Your task to perform on an android device: turn off notifications in google photos Image 0: 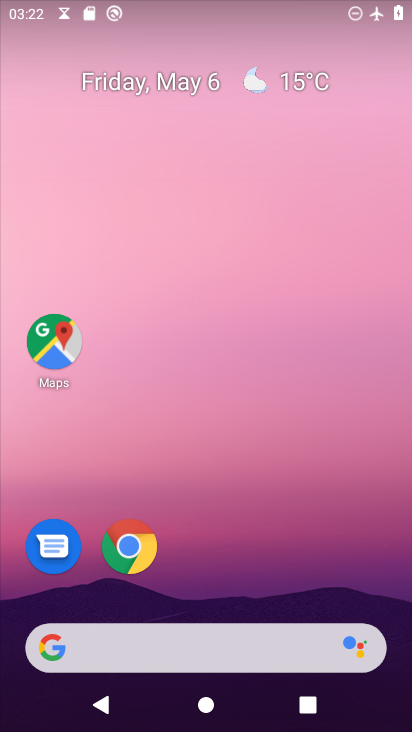
Step 0: drag from (211, 551) to (202, 154)
Your task to perform on an android device: turn off notifications in google photos Image 1: 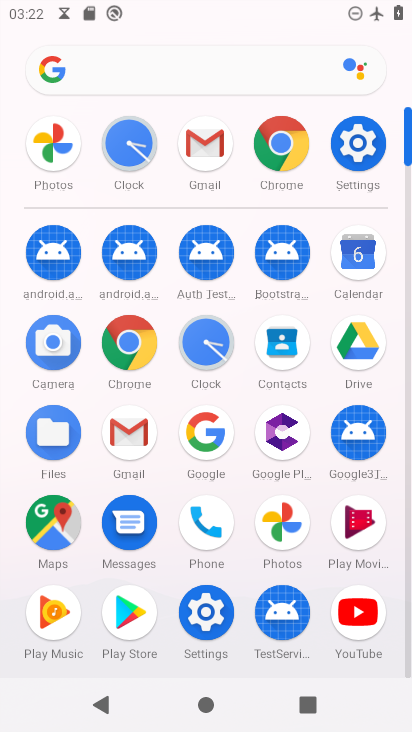
Step 1: click (292, 528)
Your task to perform on an android device: turn off notifications in google photos Image 2: 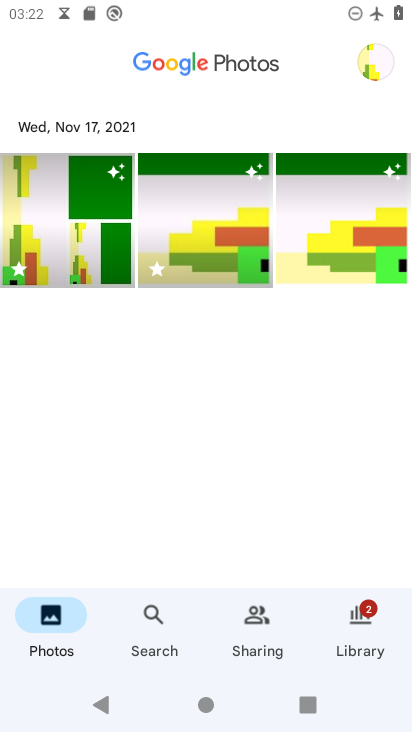
Step 2: click (376, 57)
Your task to perform on an android device: turn off notifications in google photos Image 3: 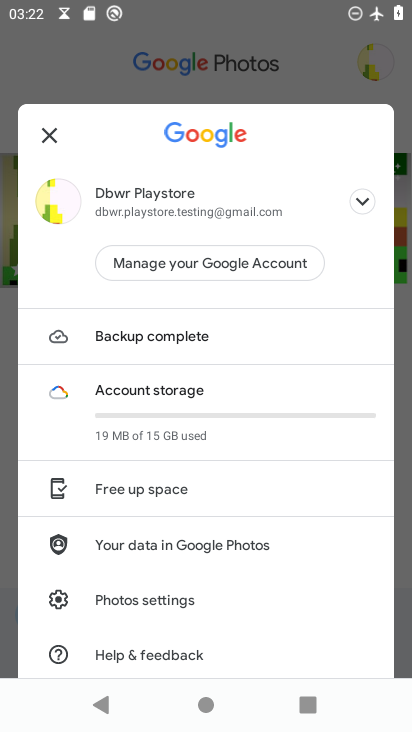
Step 3: click (154, 599)
Your task to perform on an android device: turn off notifications in google photos Image 4: 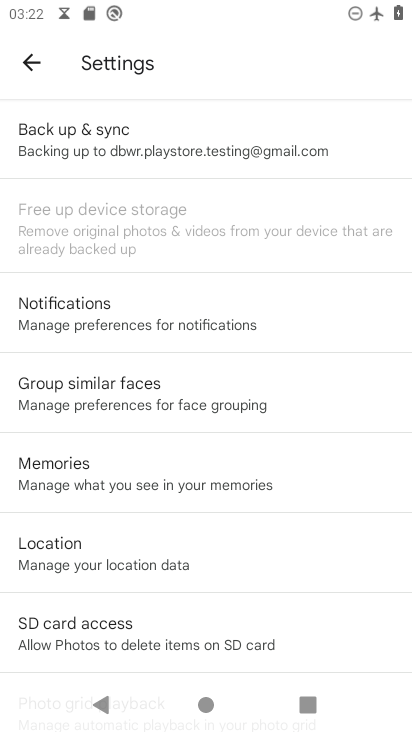
Step 4: click (172, 322)
Your task to perform on an android device: turn off notifications in google photos Image 5: 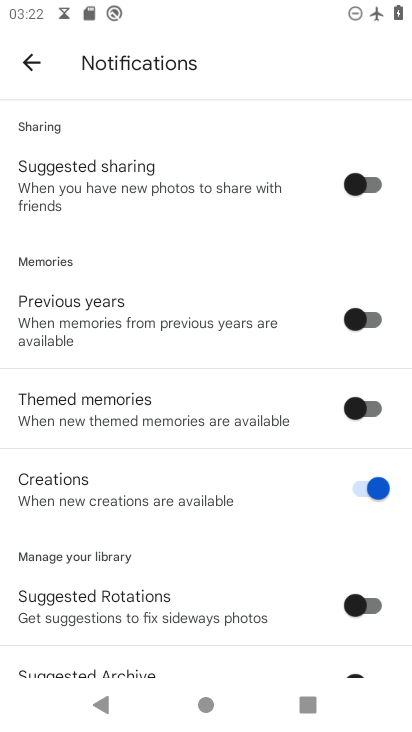
Step 5: drag from (246, 597) to (236, 182)
Your task to perform on an android device: turn off notifications in google photos Image 6: 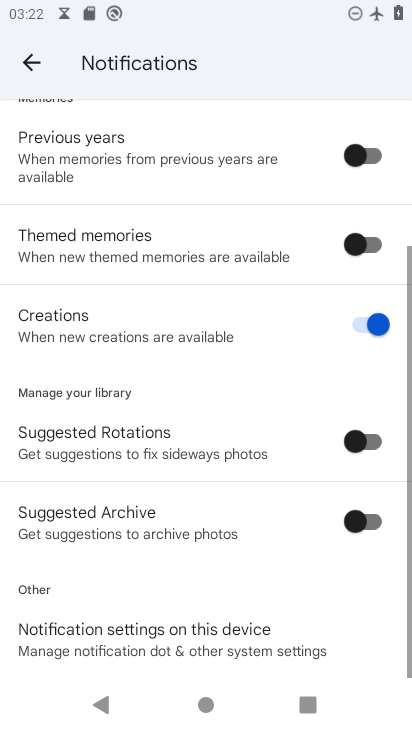
Step 6: click (172, 651)
Your task to perform on an android device: turn off notifications in google photos Image 7: 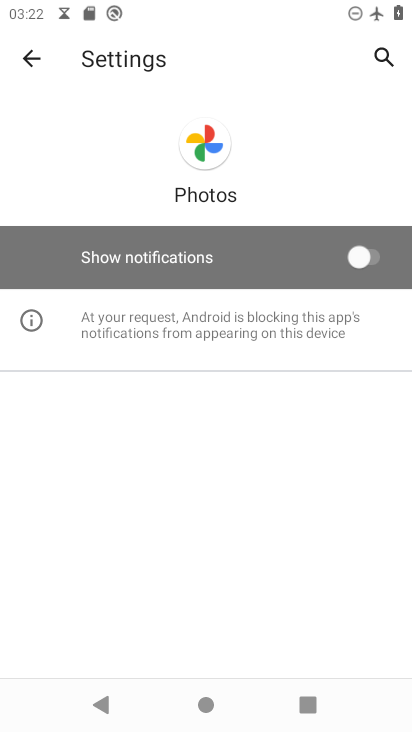
Step 7: task complete